Your task to perform on an android device: Open Android settings Image 0: 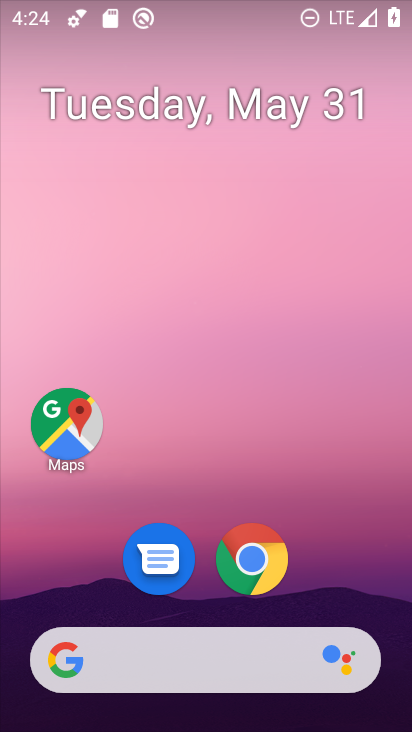
Step 0: drag from (220, 727) to (234, 117)
Your task to perform on an android device: Open Android settings Image 1: 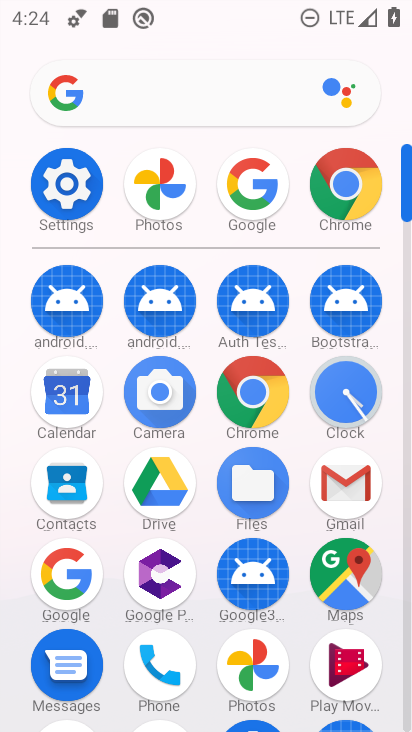
Step 1: click (62, 184)
Your task to perform on an android device: Open Android settings Image 2: 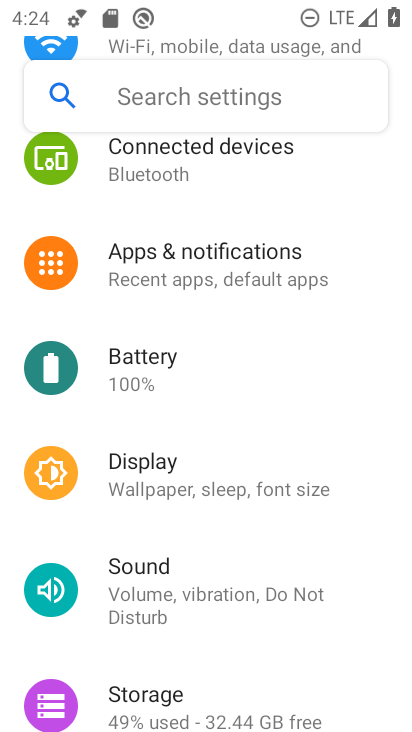
Step 2: task complete